Your task to perform on an android device: set the stopwatch Image 0: 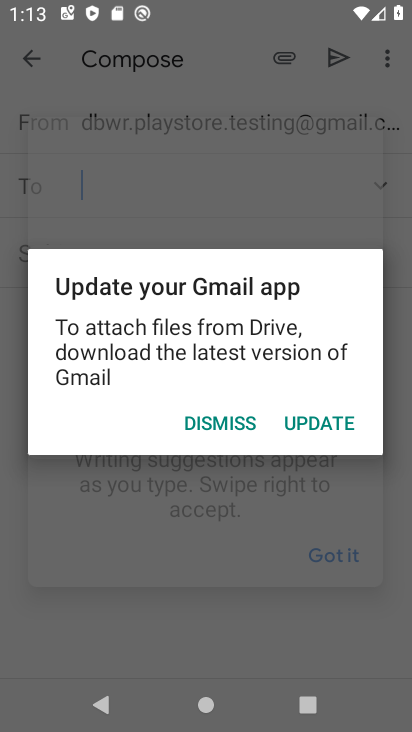
Step 0: press home button
Your task to perform on an android device: set the stopwatch Image 1: 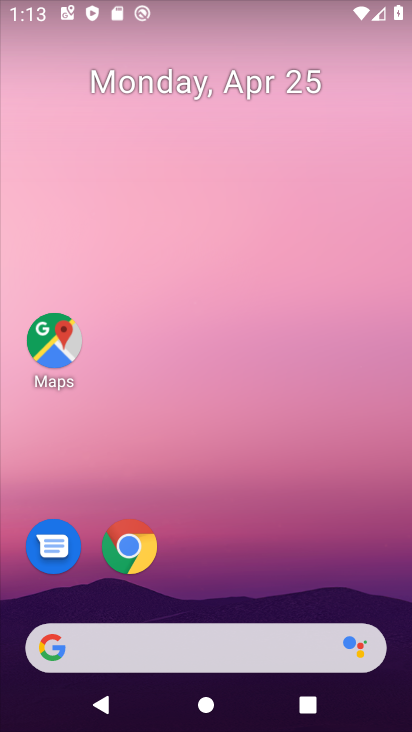
Step 1: drag from (170, 395) to (409, 440)
Your task to perform on an android device: set the stopwatch Image 2: 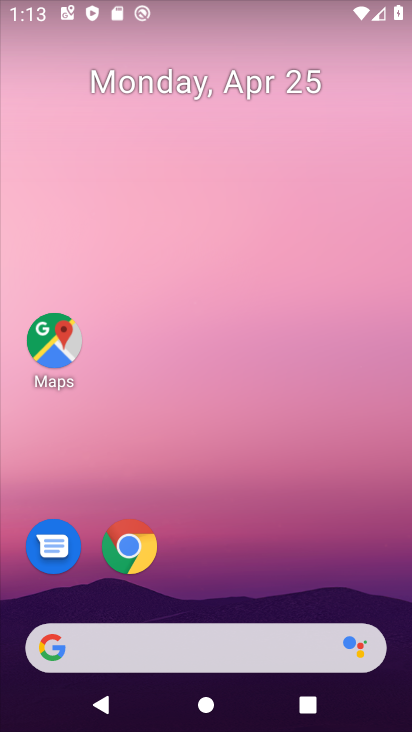
Step 2: drag from (202, 612) to (253, 2)
Your task to perform on an android device: set the stopwatch Image 3: 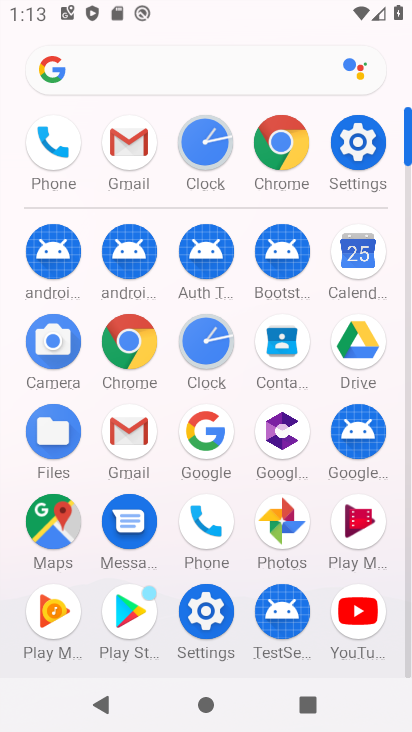
Step 3: click (206, 150)
Your task to perform on an android device: set the stopwatch Image 4: 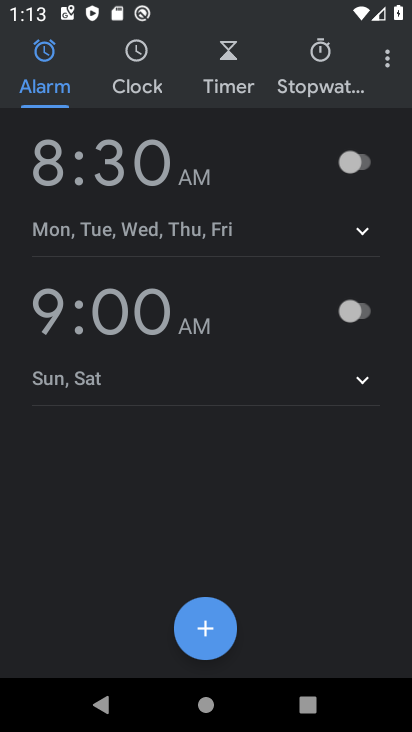
Step 4: click (324, 81)
Your task to perform on an android device: set the stopwatch Image 5: 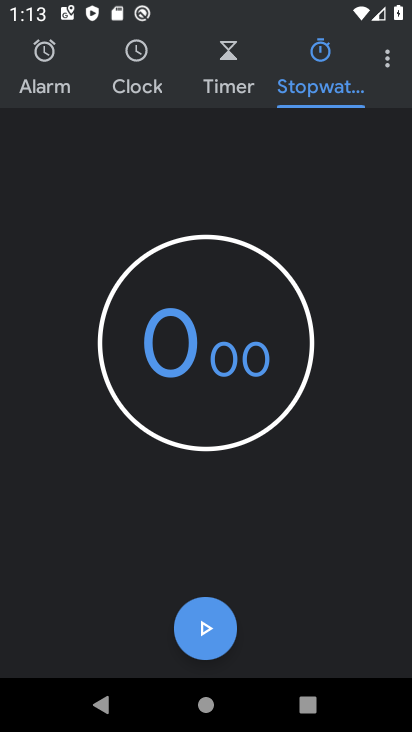
Step 5: click (212, 653)
Your task to perform on an android device: set the stopwatch Image 6: 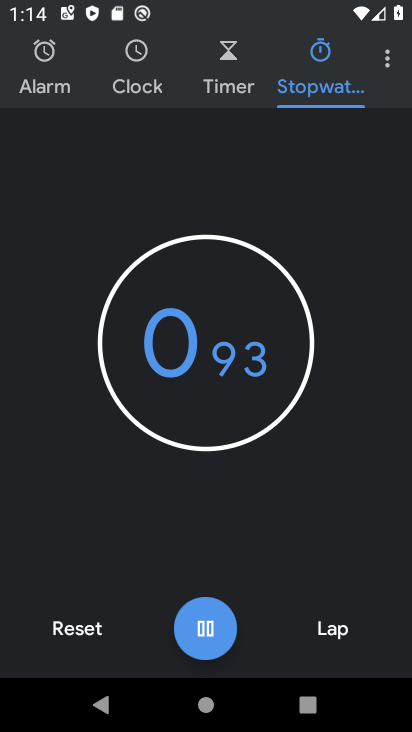
Step 6: click (212, 653)
Your task to perform on an android device: set the stopwatch Image 7: 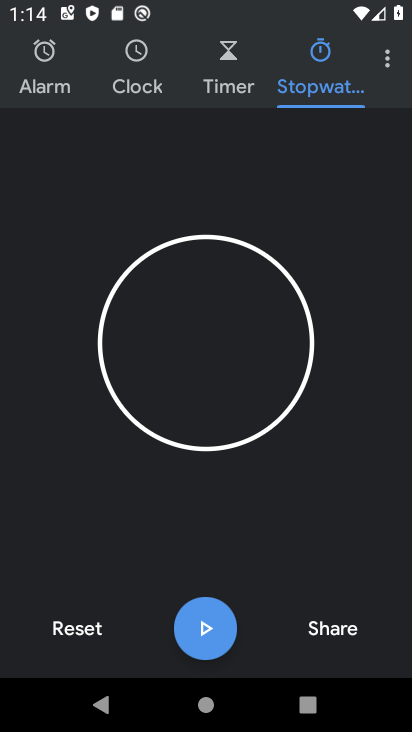
Step 7: task complete